Your task to perform on an android device: Do I have any events today? Image 0: 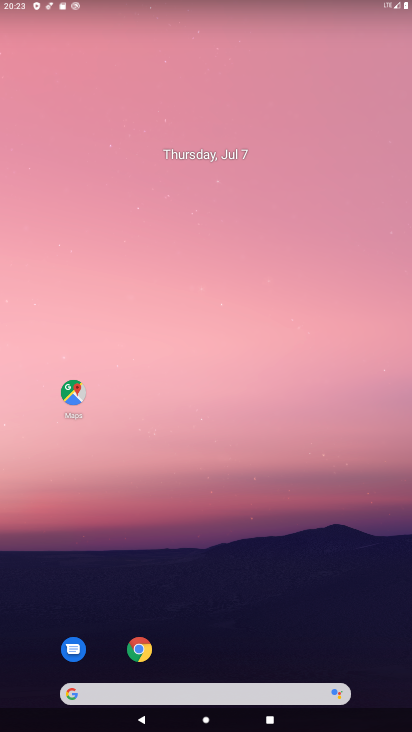
Step 0: drag from (268, 571) to (169, 69)
Your task to perform on an android device: Do I have any events today? Image 1: 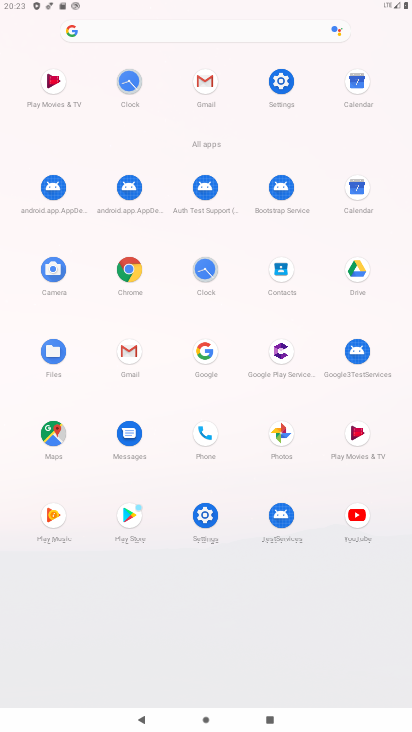
Step 1: click (357, 193)
Your task to perform on an android device: Do I have any events today? Image 2: 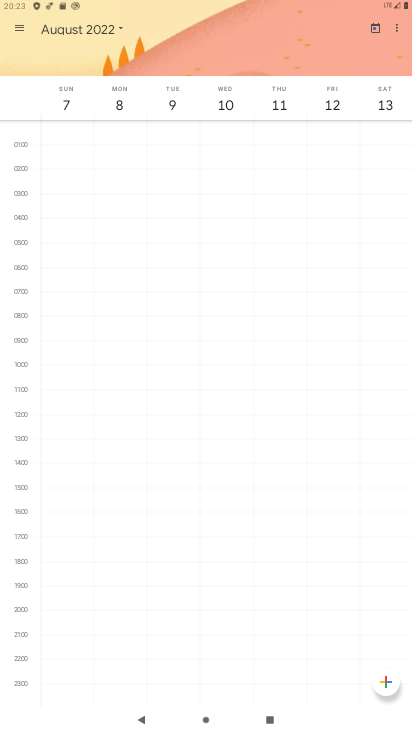
Step 2: click (112, 24)
Your task to perform on an android device: Do I have any events today? Image 3: 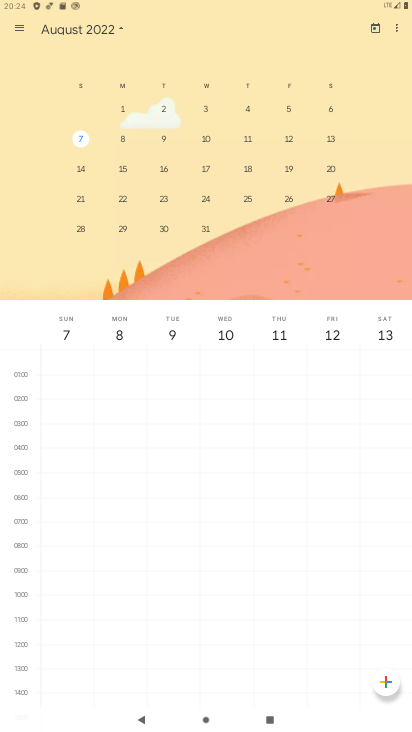
Step 3: drag from (59, 152) to (411, 238)
Your task to perform on an android device: Do I have any events today? Image 4: 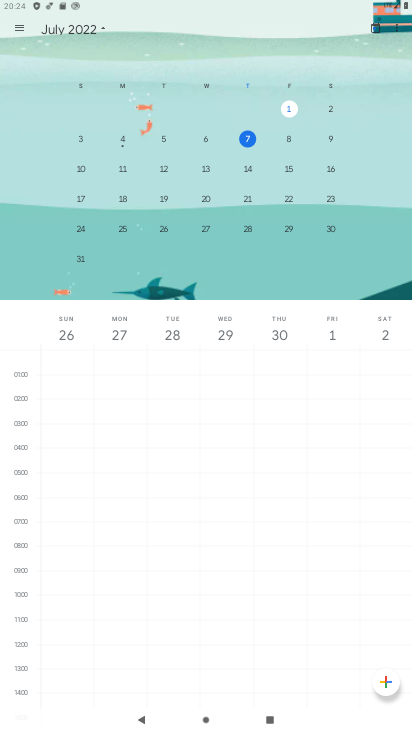
Step 4: click (14, 21)
Your task to perform on an android device: Do I have any events today? Image 5: 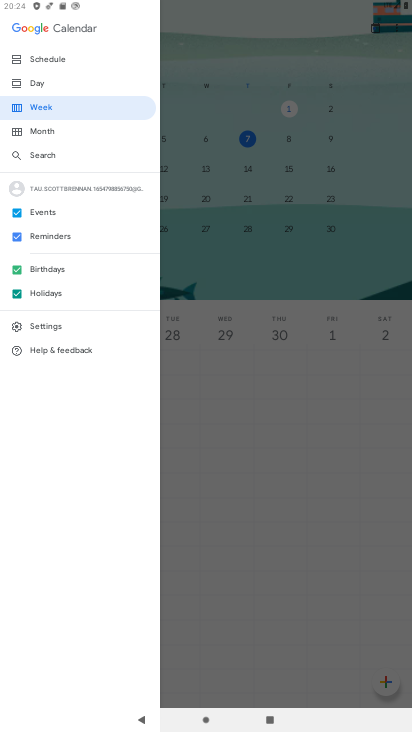
Step 5: click (39, 84)
Your task to perform on an android device: Do I have any events today? Image 6: 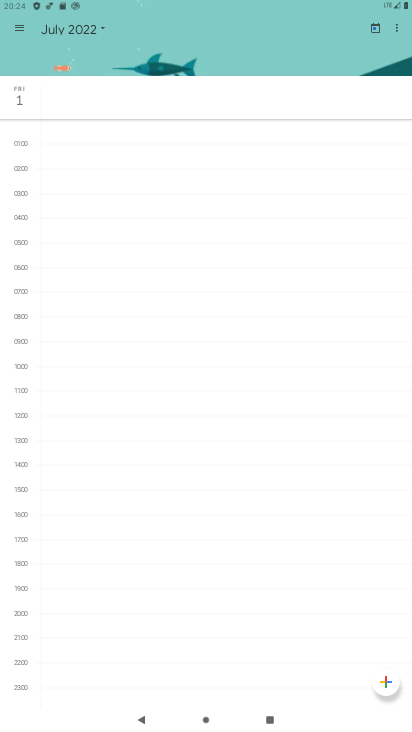
Step 6: click (104, 24)
Your task to perform on an android device: Do I have any events today? Image 7: 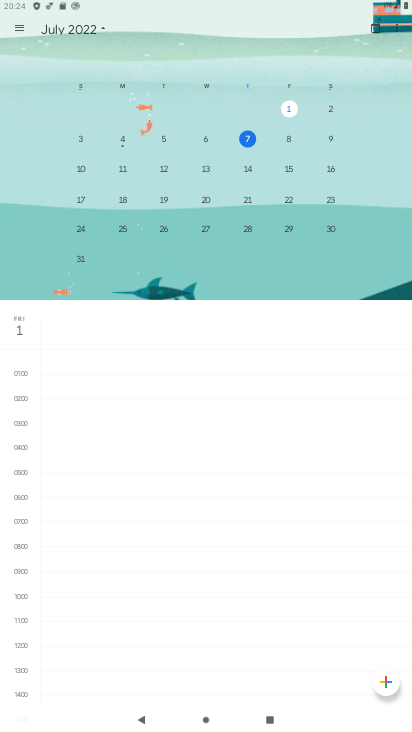
Step 7: click (245, 136)
Your task to perform on an android device: Do I have any events today? Image 8: 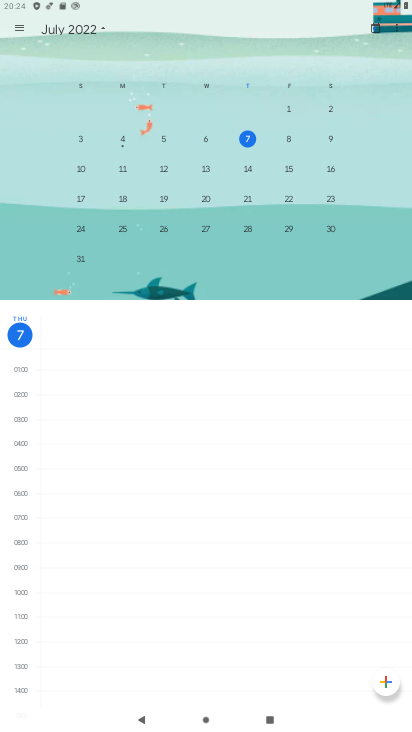
Step 8: task complete